Your task to perform on an android device: change the clock display to analog Image 0: 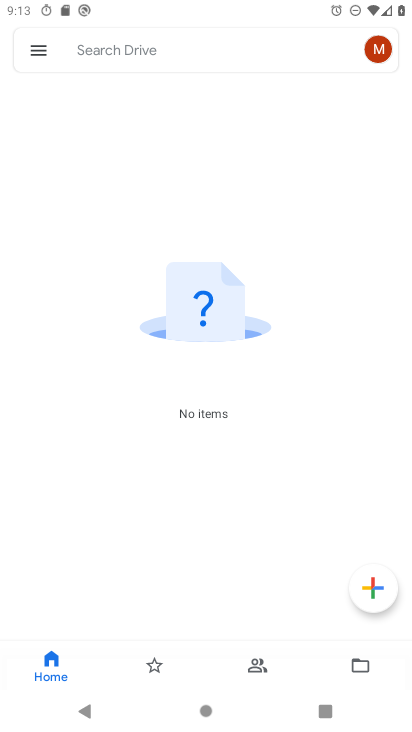
Step 0: press home button
Your task to perform on an android device: change the clock display to analog Image 1: 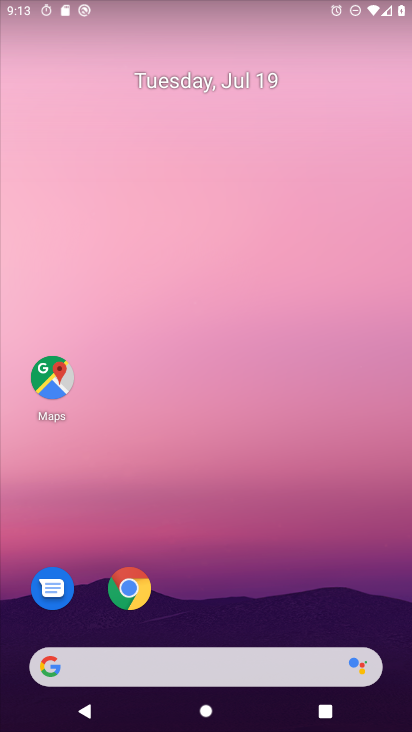
Step 1: drag from (3, 719) to (326, 199)
Your task to perform on an android device: change the clock display to analog Image 2: 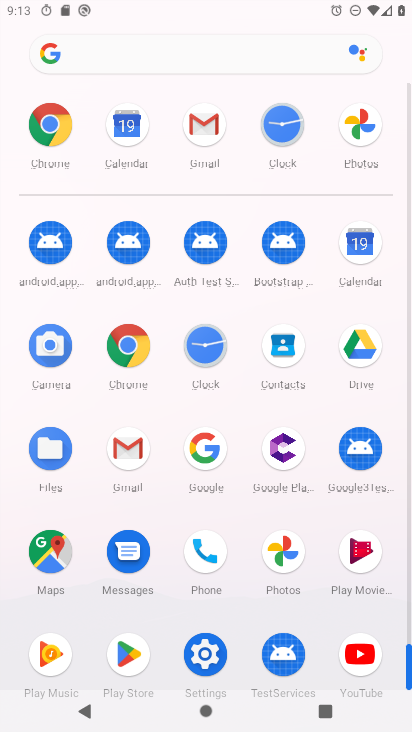
Step 2: click (274, 115)
Your task to perform on an android device: change the clock display to analog Image 3: 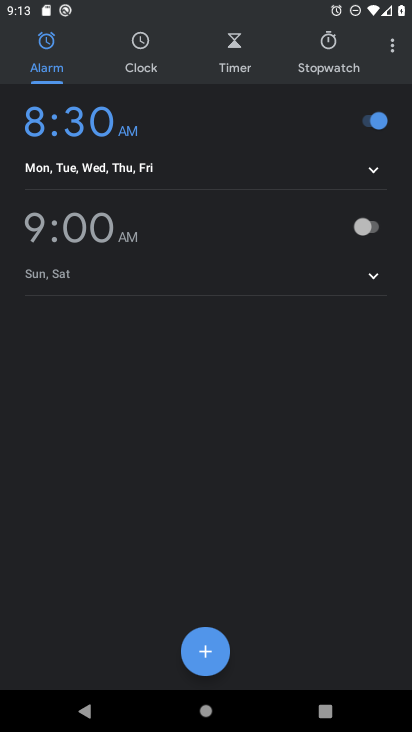
Step 3: click (388, 49)
Your task to perform on an android device: change the clock display to analog Image 4: 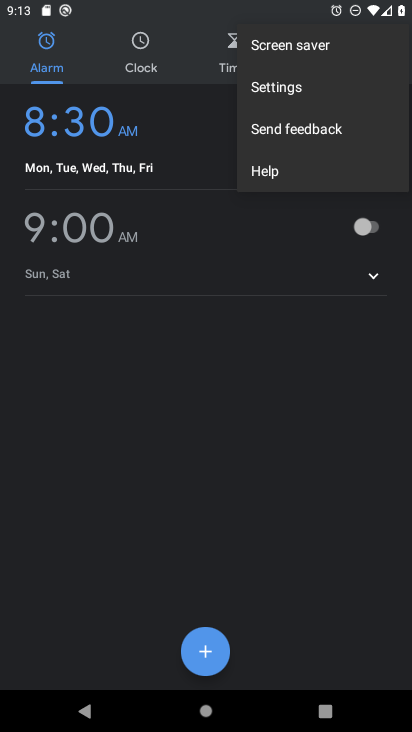
Step 4: click (262, 88)
Your task to perform on an android device: change the clock display to analog Image 5: 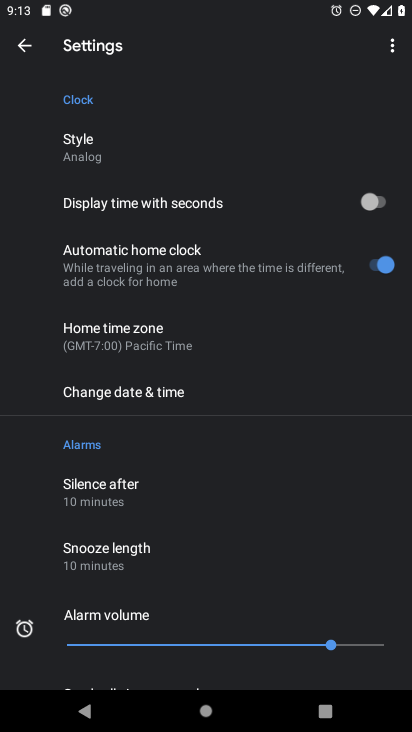
Step 5: click (140, 165)
Your task to perform on an android device: change the clock display to analog Image 6: 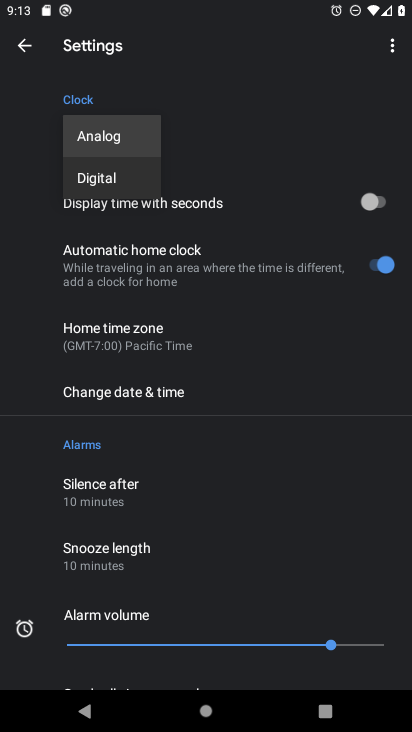
Step 6: click (121, 129)
Your task to perform on an android device: change the clock display to analog Image 7: 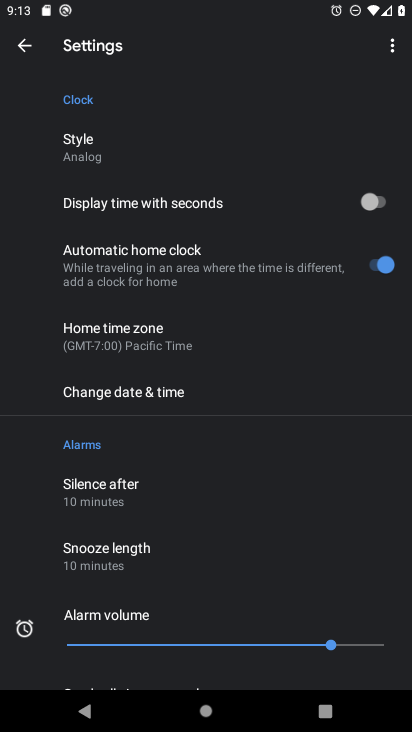
Step 7: task complete